Your task to perform on an android device: Open Amazon Image 0: 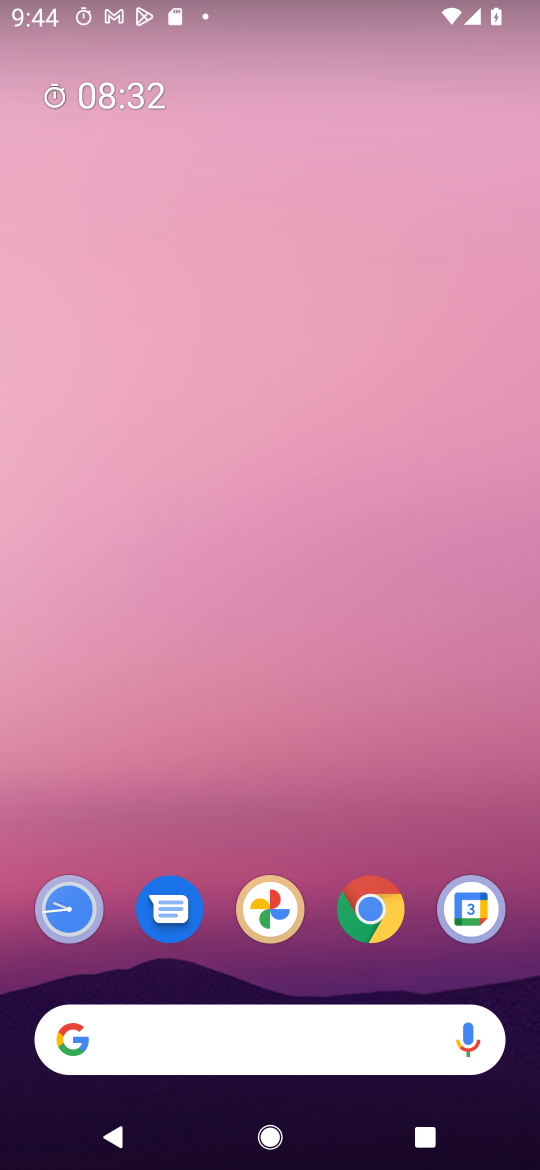
Step 0: press home button
Your task to perform on an android device: Open Amazon Image 1: 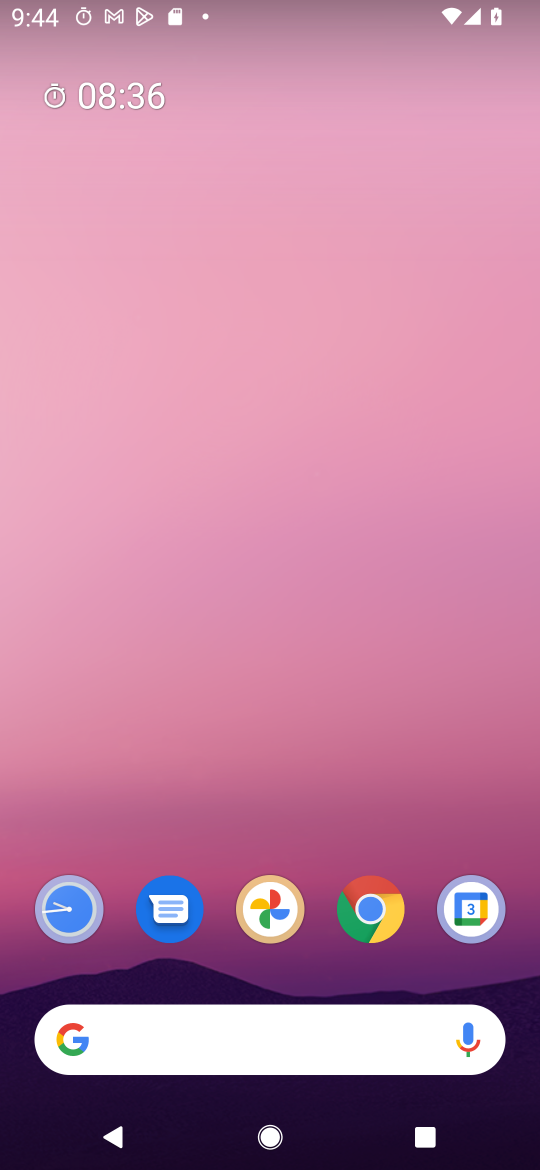
Step 1: drag from (411, 827) to (421, 406)
Your task to perform on an android device: Open Amazon Image 2: 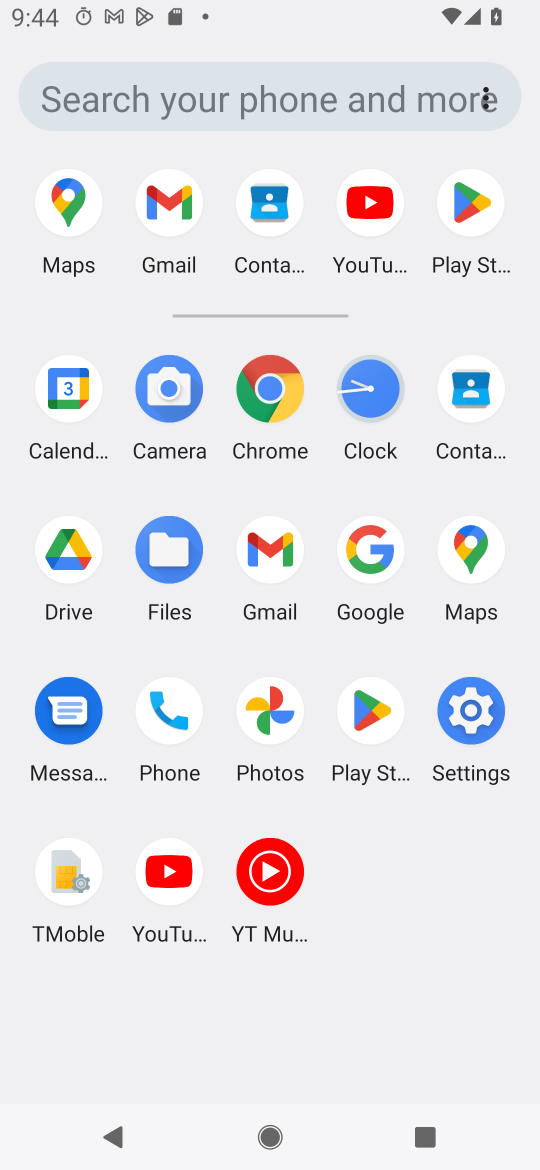
Step 2: click (274, 392)
Your task to perform on an android device: Open Amazon Image 3: 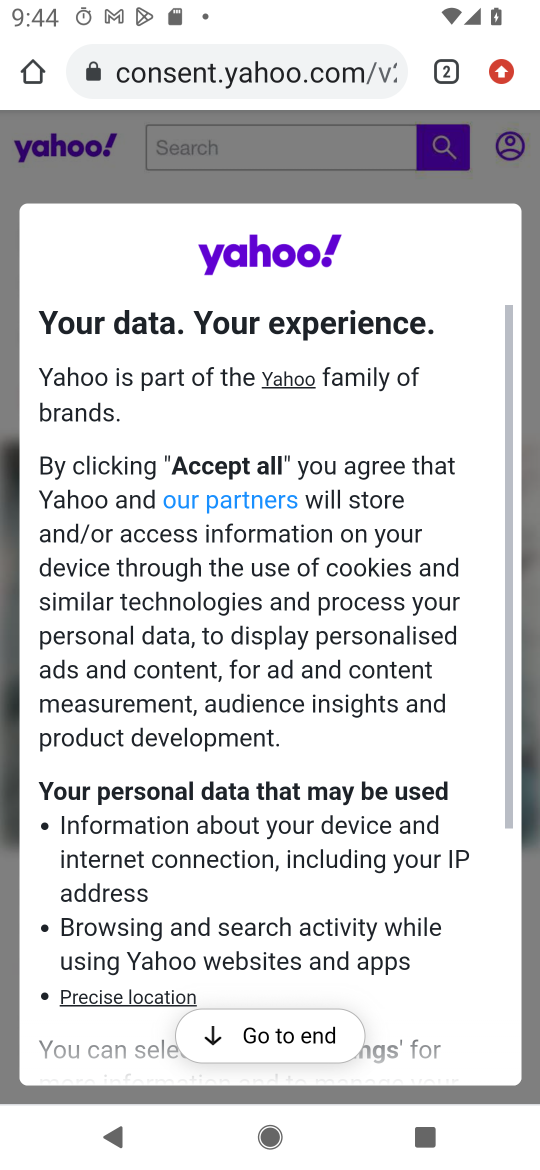
Step 3: click (312, 63)
Your task to perform on an android device: Open Amazon Image 4: 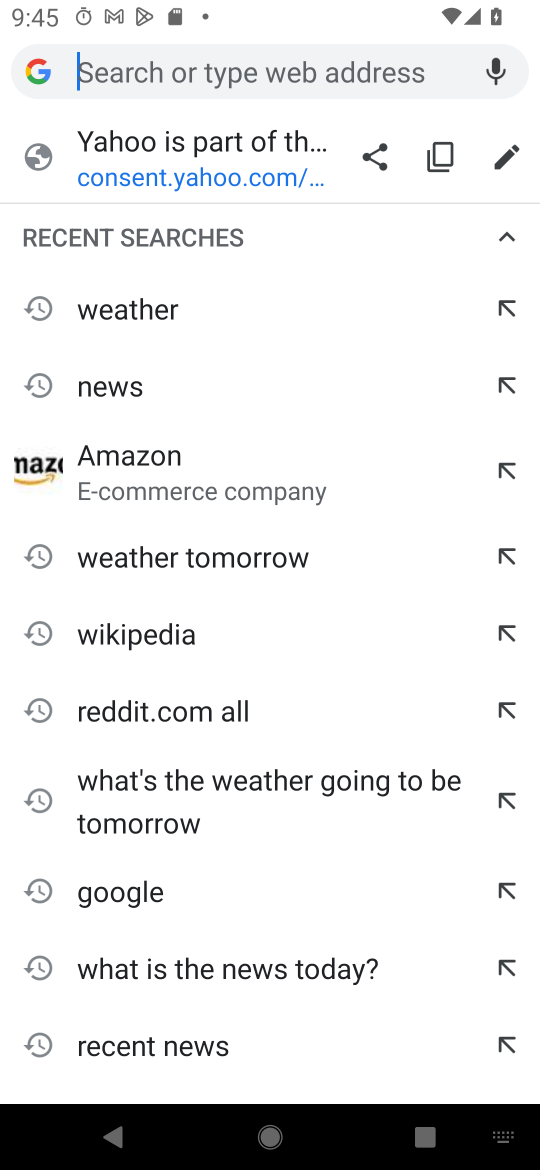
Step 4: type "amazon"
Your task to perform on an android device: Open Amazon Image 5: 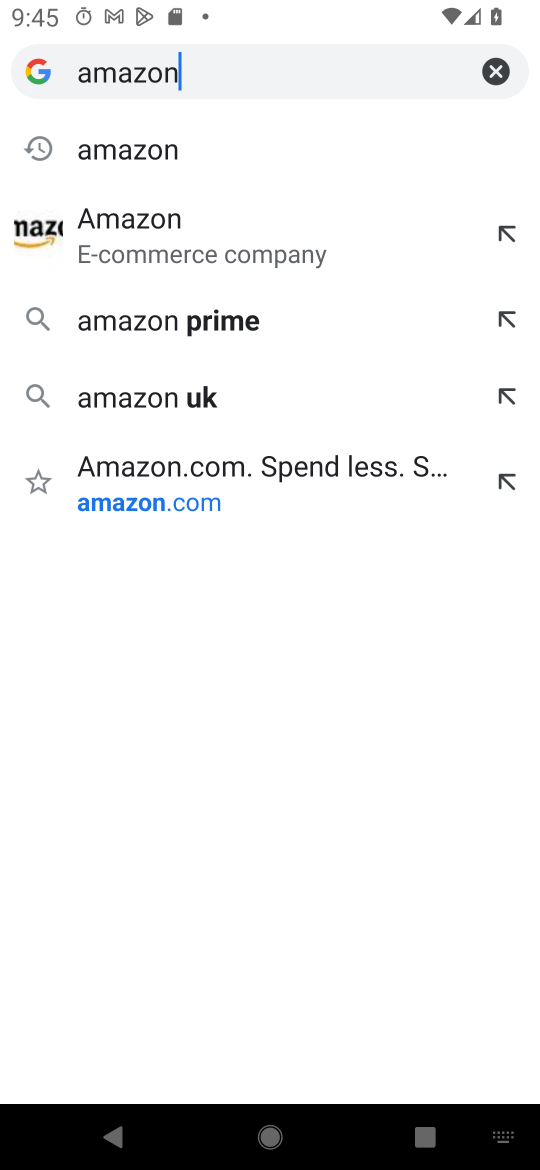
Step 5: click (279, 242)
Your task to perform on an android device: Open Amazon Image 6: 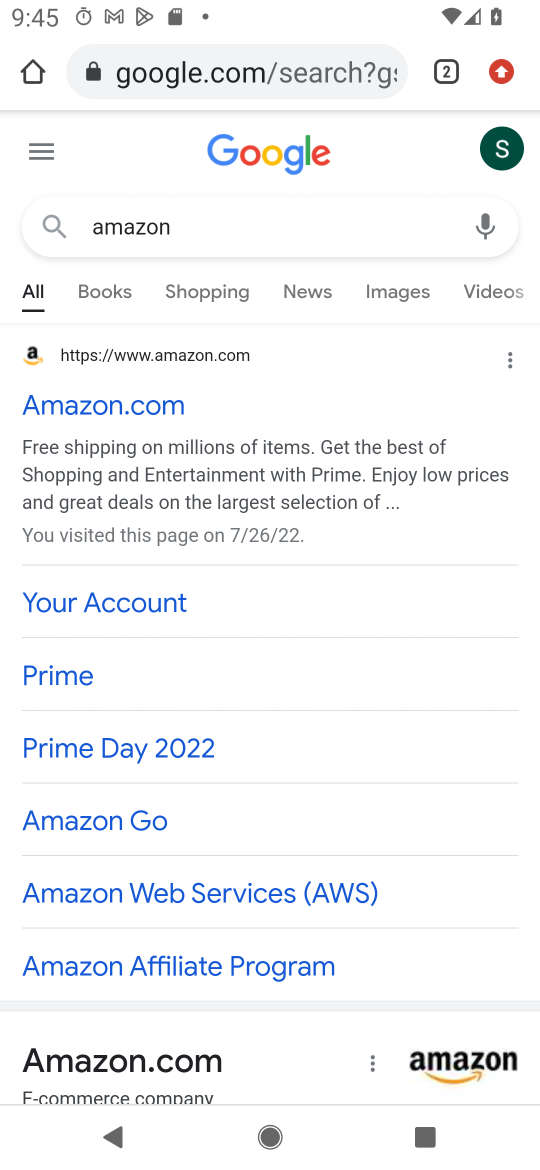
Step 6: task complete